Your task to perform on an android device: Clear the shopping cart on bestbuy.com. Add "acer nitro" to the cart on bestbuy.com, then select checkout. Image 0: 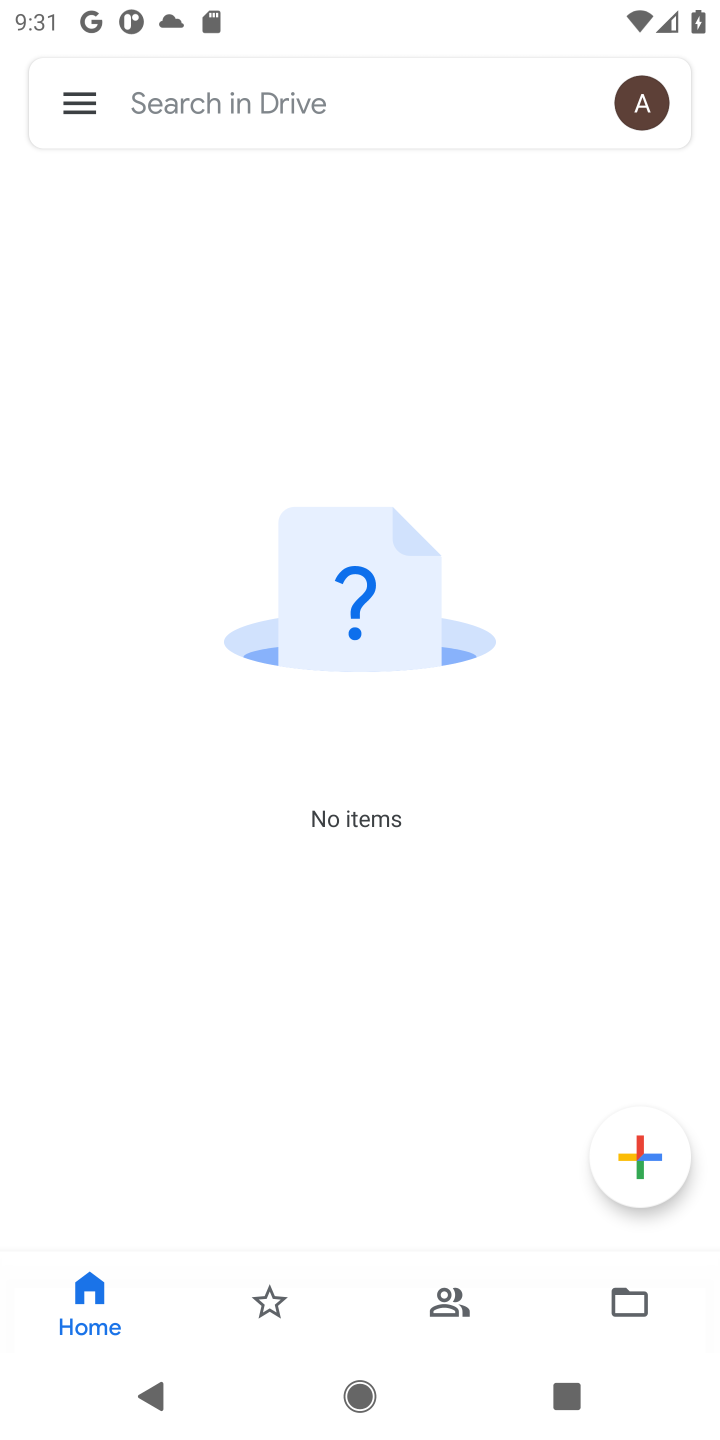
Step 0: press home button
Your task to perform on an android device: Clear the shopping cart on bestbuy.com. Add "acer nitro" to the cart on bestbuy.com, then select checkout. Image 1: 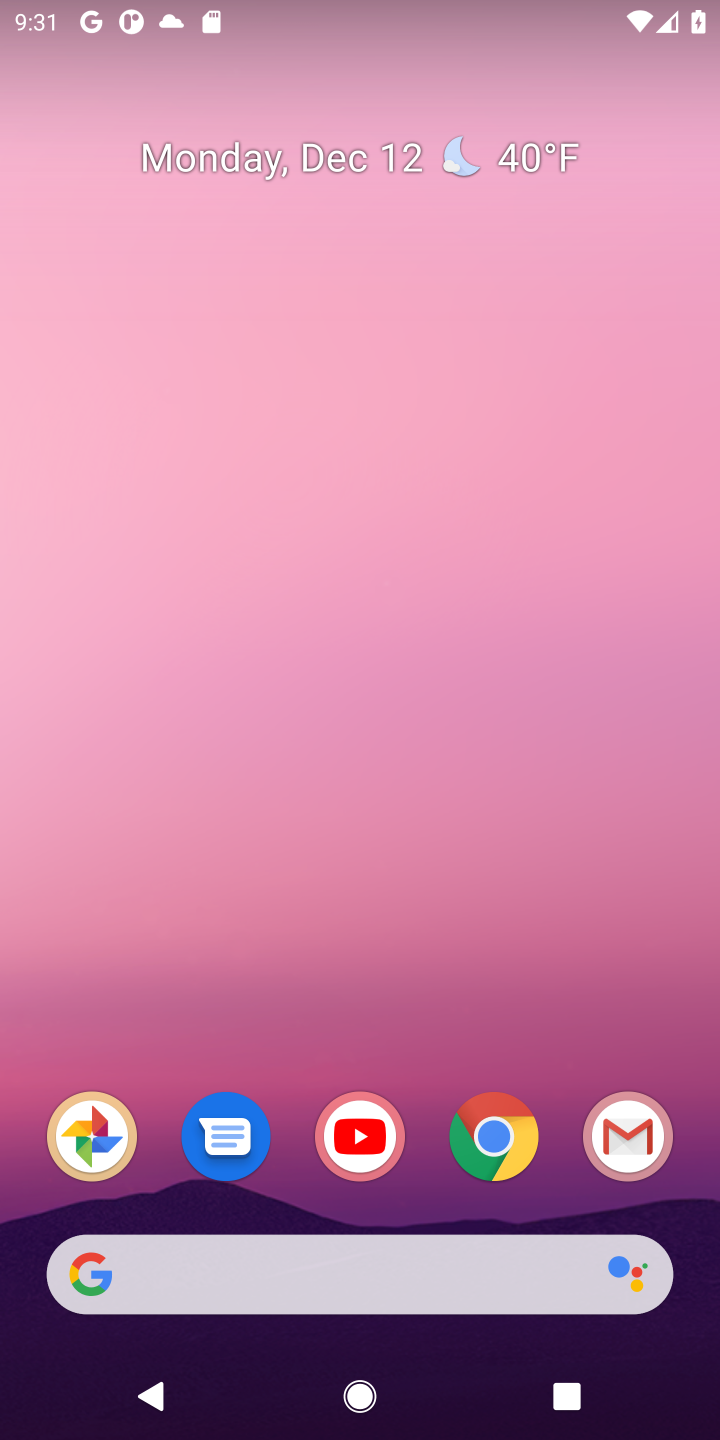
Step 1: click (503, 1146)
Your task to perform on an android device: Clear the shopping cart on bestbuy.com. Add "acer nitro" to the cart on bestbuy.com, then select checkout. Image 2: 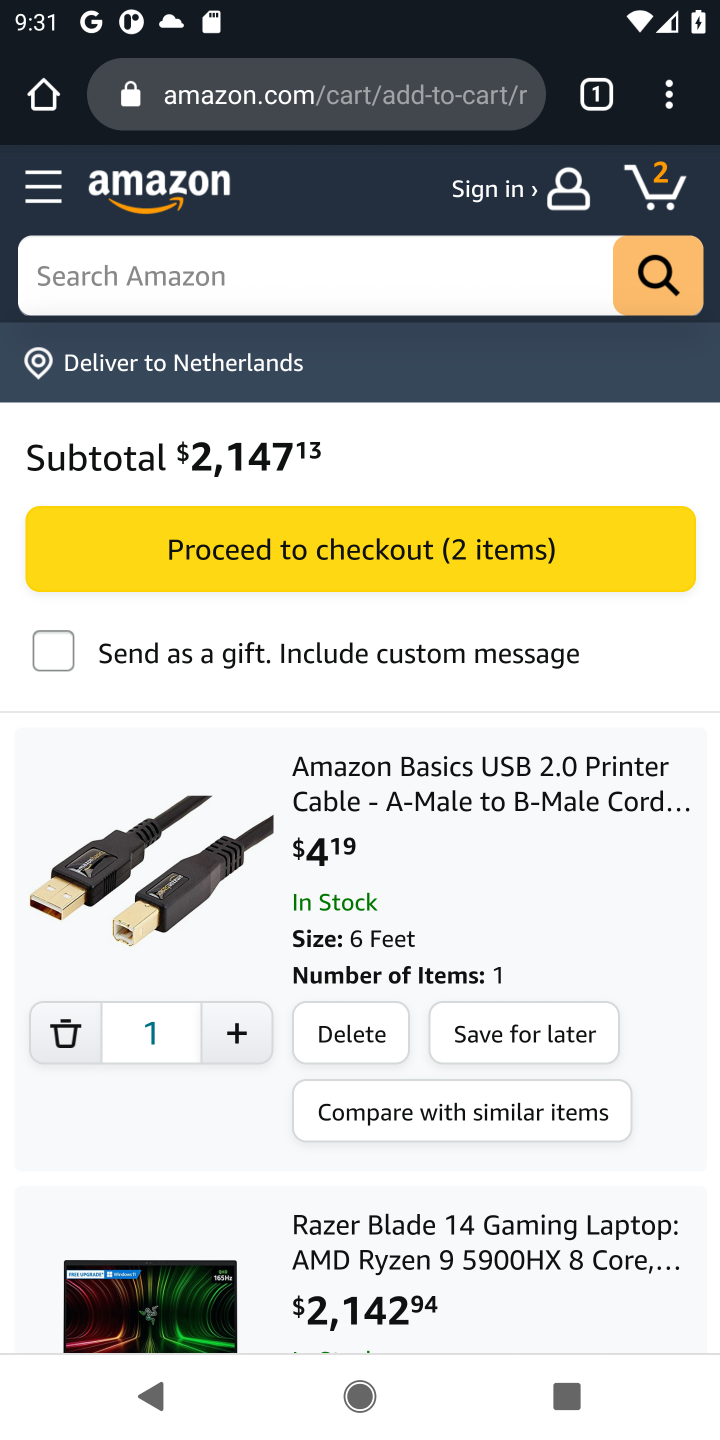
Step 2: click (319, 102)
Your task to perform on an android device: Clear the shopping cart on bestbuy.com. Add "acer nitro" to the cart on bestbuy.com, then select checkout. Image 3: 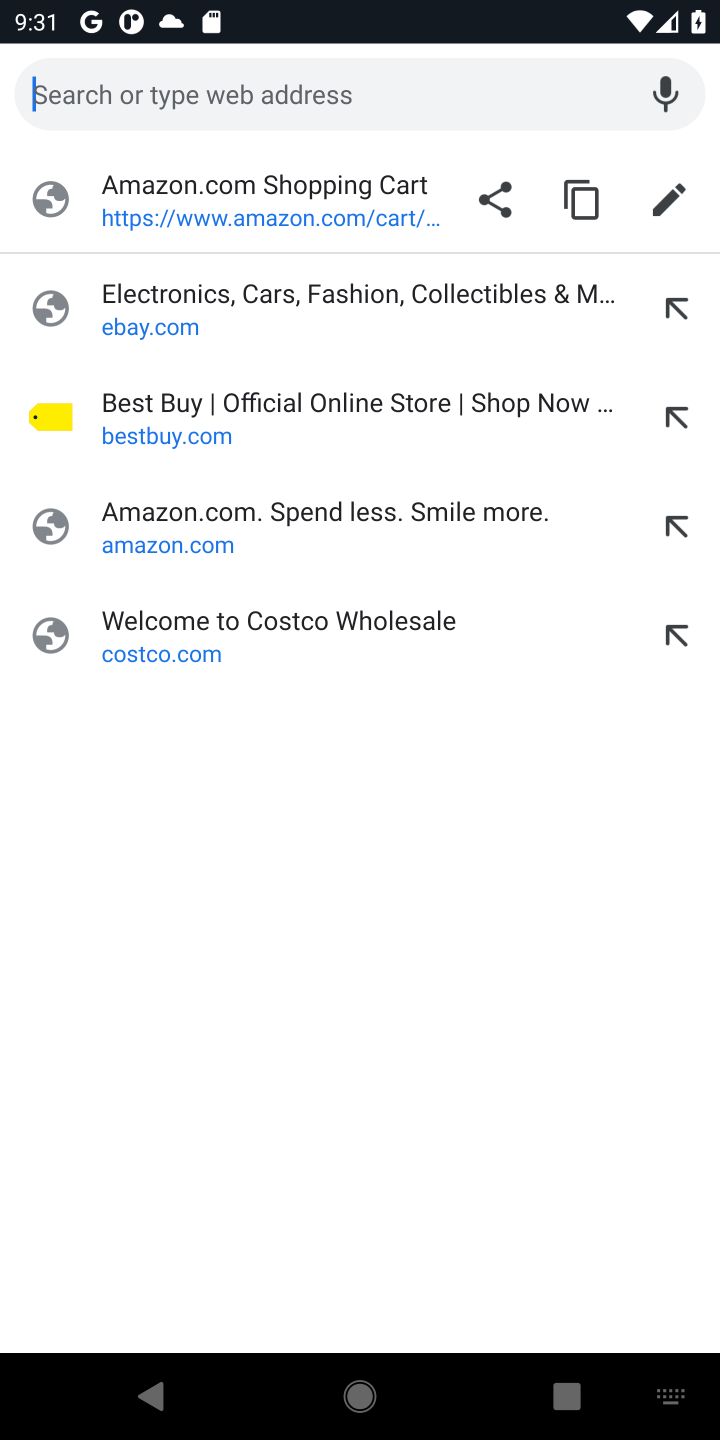
Step 3: click (140, 420)
Your task to perform on an android device: Clear the shopping cart on bestbuy.com. Add "acer nitro" to the cart on bestbuy.com, then select checkout. Image 4: 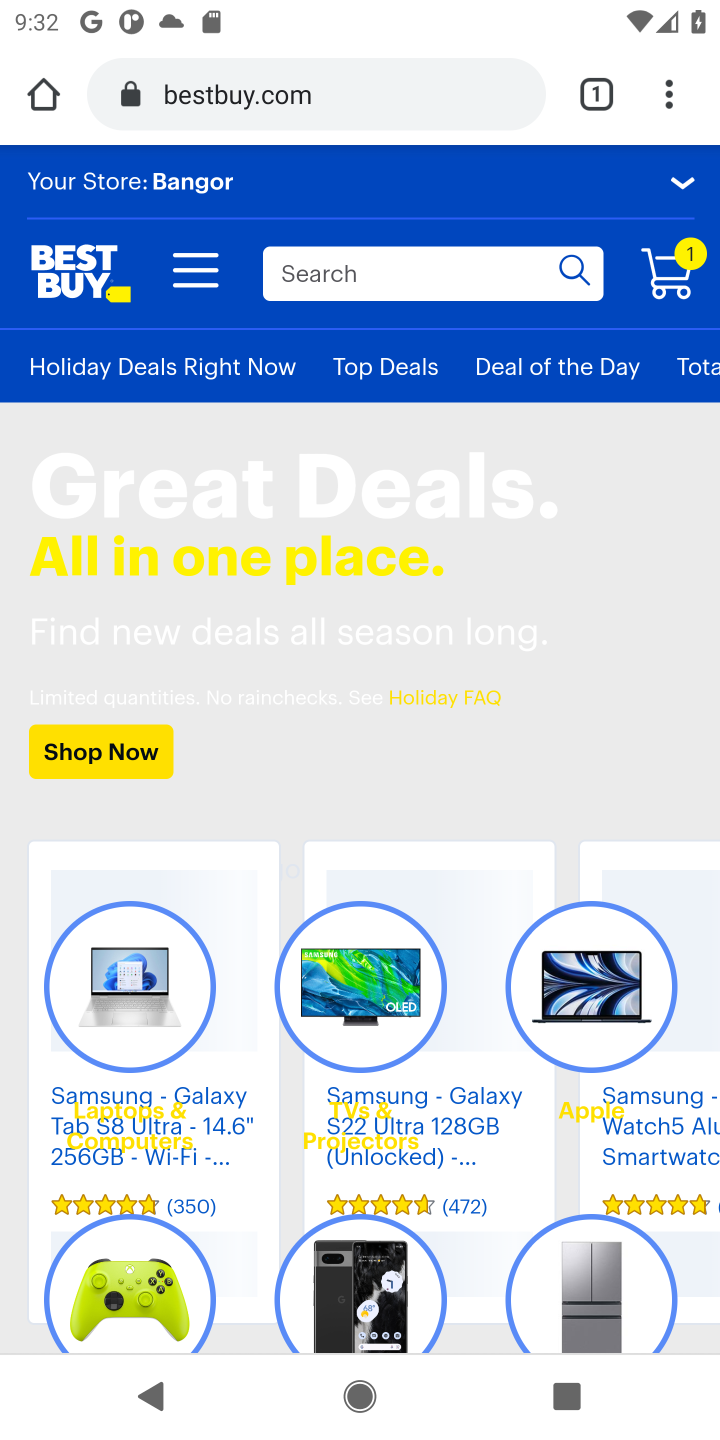
Step 4: click (675, 282)
Your task to perform on an android device: Clear the shopping cart on bestbuy.com. Add "acer nitro" to the cart on bestbuy.com, then select checkout. Image 5: 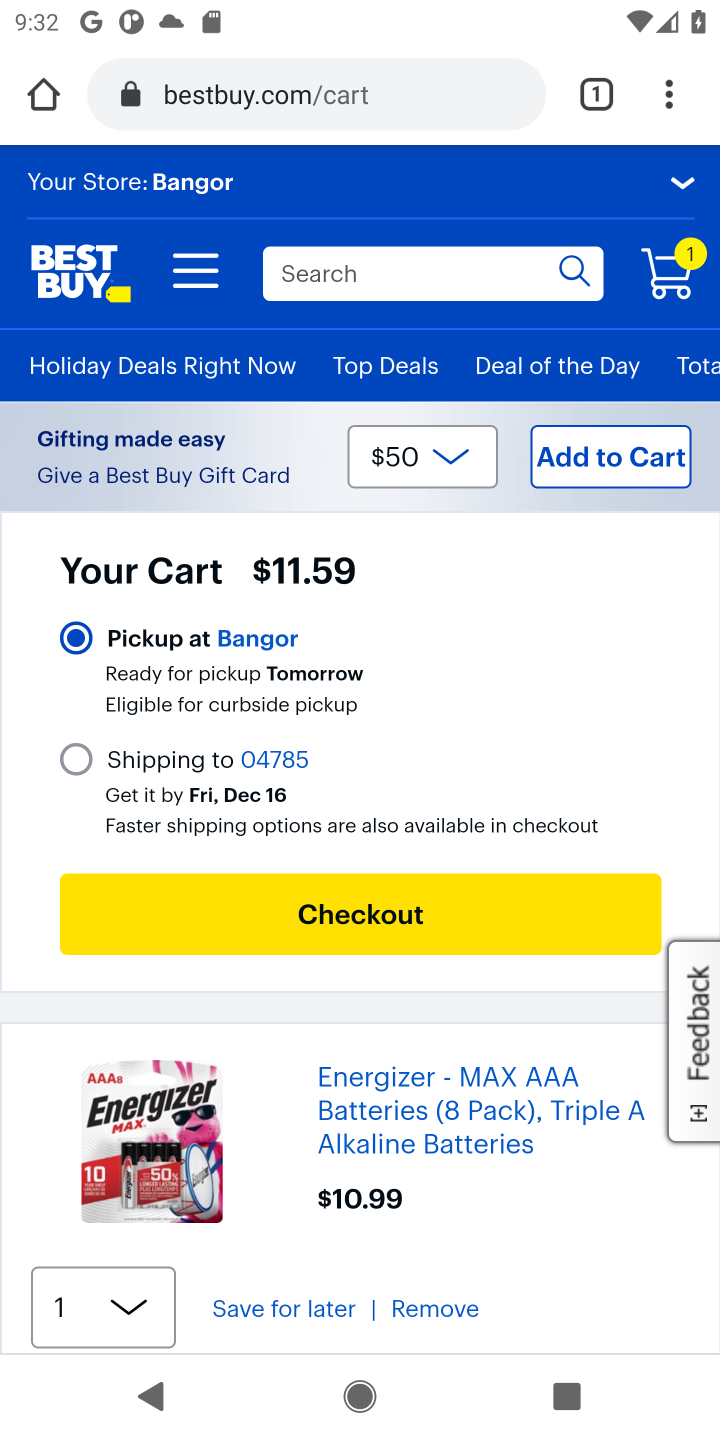
Step 5: drag from (349, 762) to (349, 364)
Your task to perform on an android device: Clear the shopping cart on bestbuy.com. Add "acer nitro" to the cart on bestbuy.com, then select checkout. Image 6: 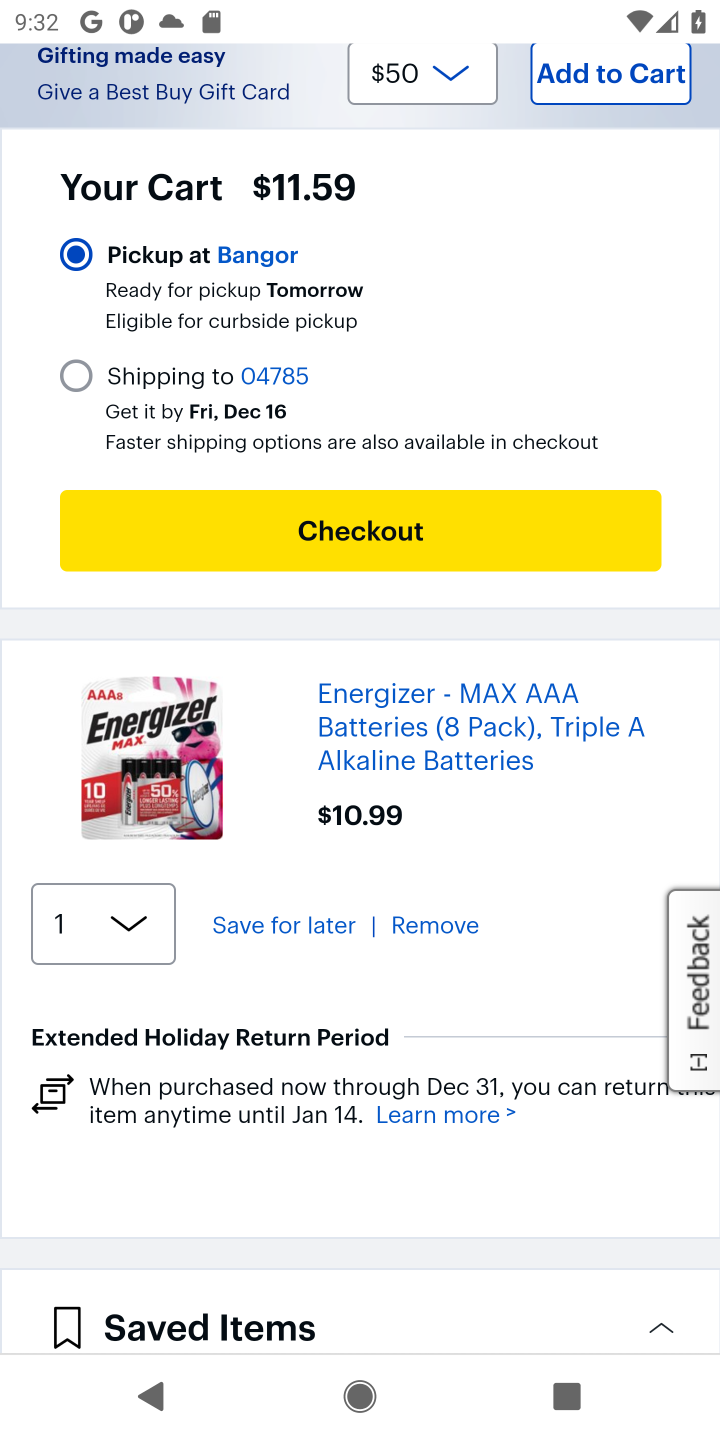
Step 6: click (436, 932)
Your task to perform on an android device: Clear the shopping cart on bestbuy.com. Add "acer nitro" to the cart on bestbuy.com, then select checkout. Image 7: 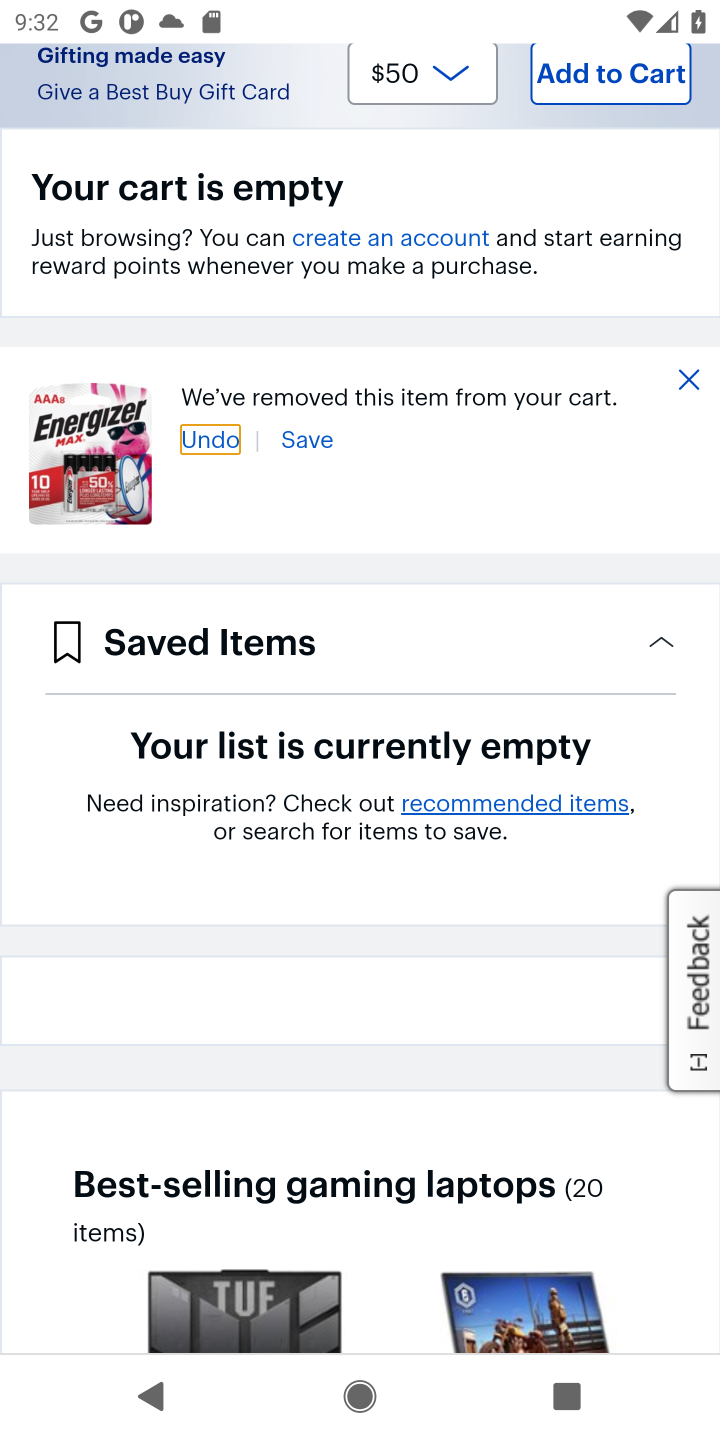
Step 7: drag from (454, 536) to (478, 967)
Your task to perform on an android device: Clear the shopping cart on bestbuy.com. Add "acer nitro" to the cart on bestbuy.com, then select checkout. Image 8: 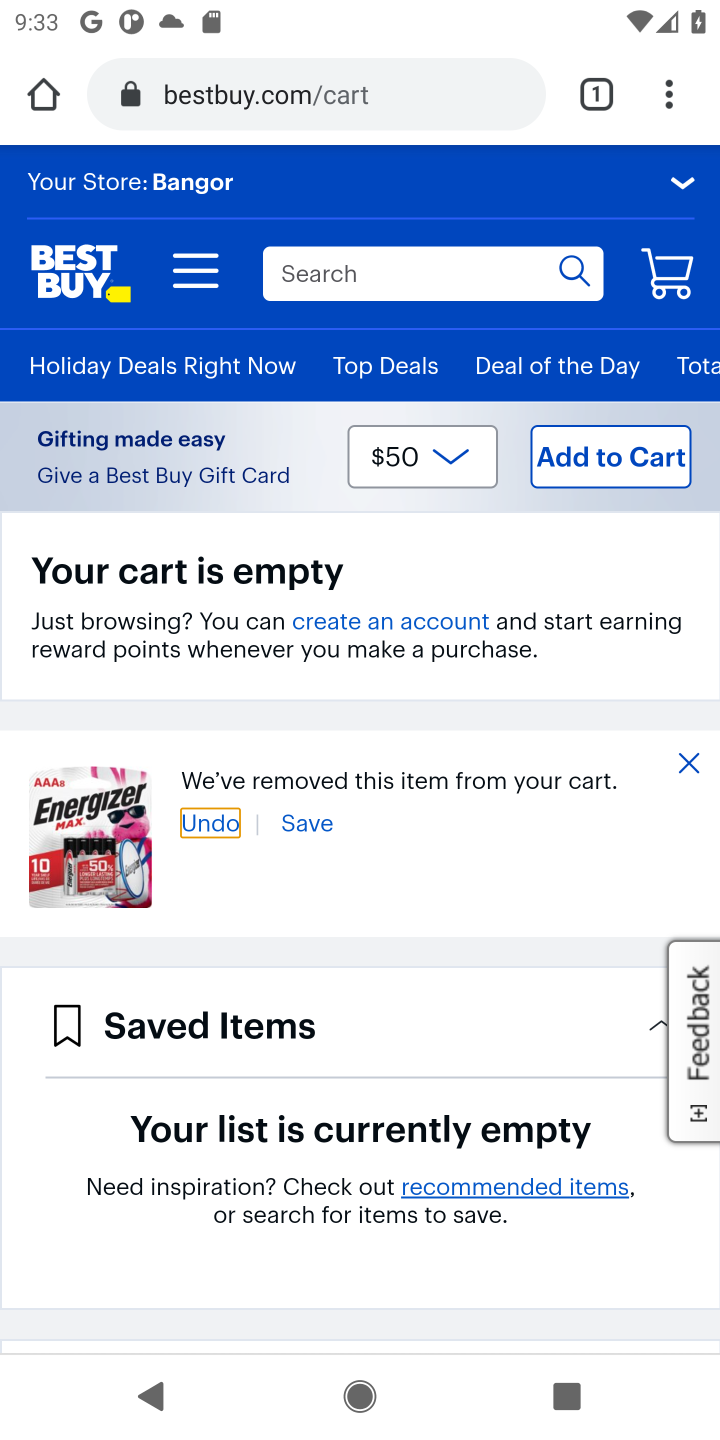
Step 8: click (313, 288)
Your task to perform on an android device: Clear the shopping cart on bestbuy.com. Add "acer nitro" to the cart on bestbuy.com, then select checkout. Image 9: 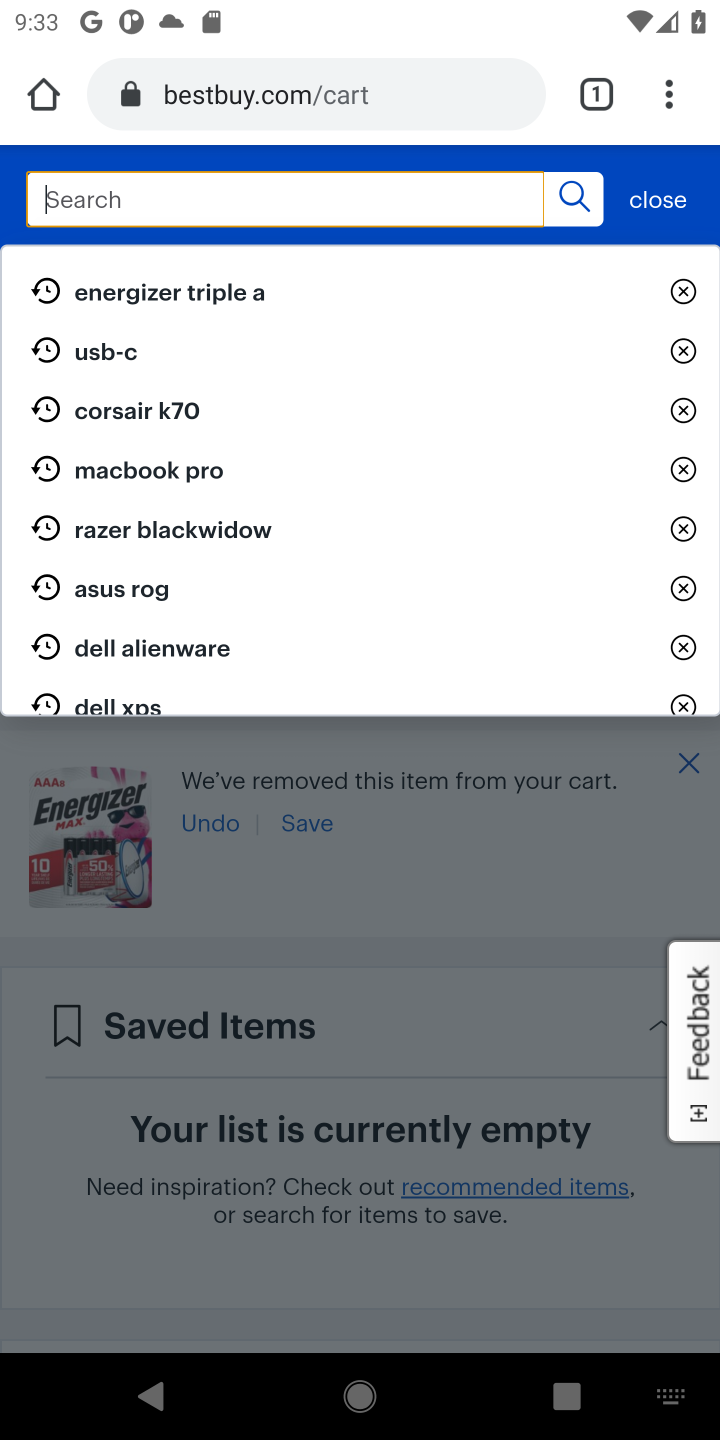
Step 9: type "acer nitro"
Your task to perform on an android device: Clear the shopping cart on bestbuy.com. Add "acer nitro" to the cart on bestbuy.com, then select checkout. Image 10: 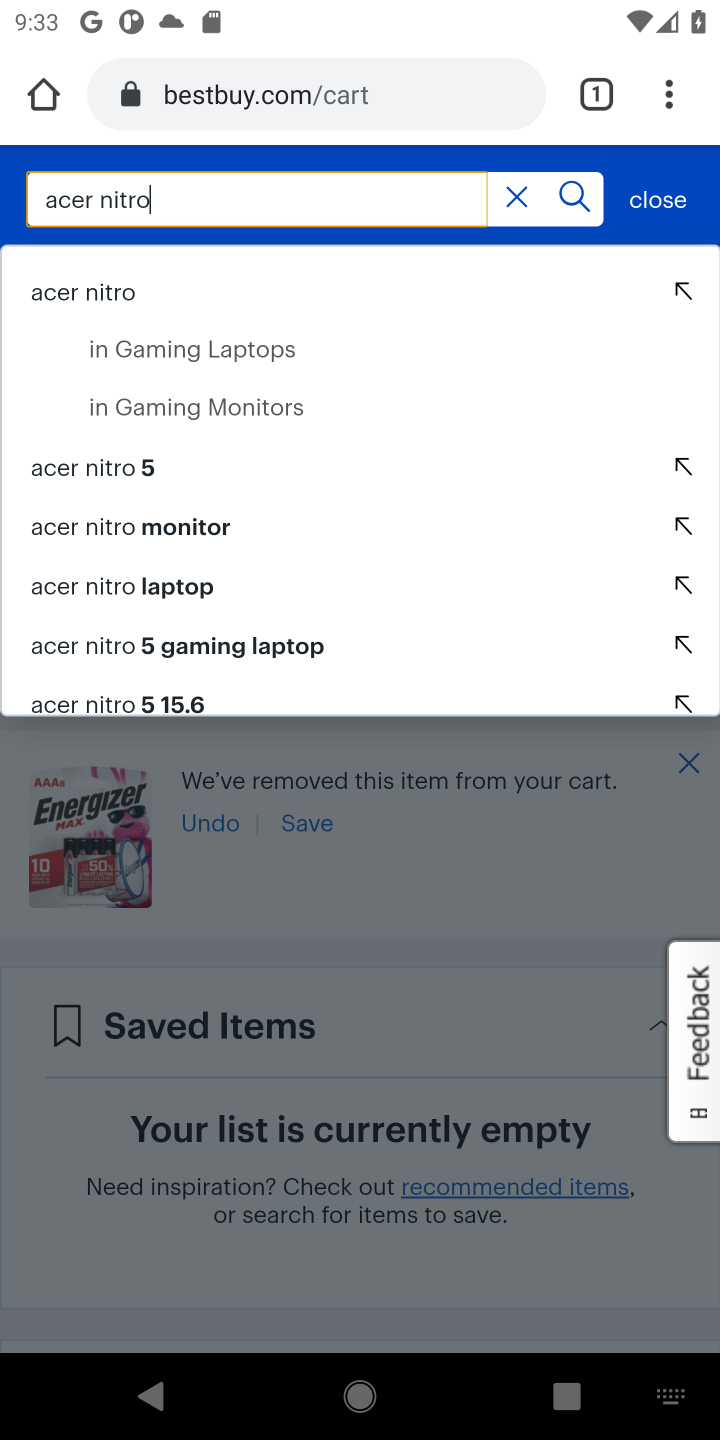
Step 10: click (116, 290)
Your task to perform on an android device: Clear the shopping cart on bestbuy.com. Add "acer nitro" to the cart on bestbuy.com, then select checkout. Image 11: 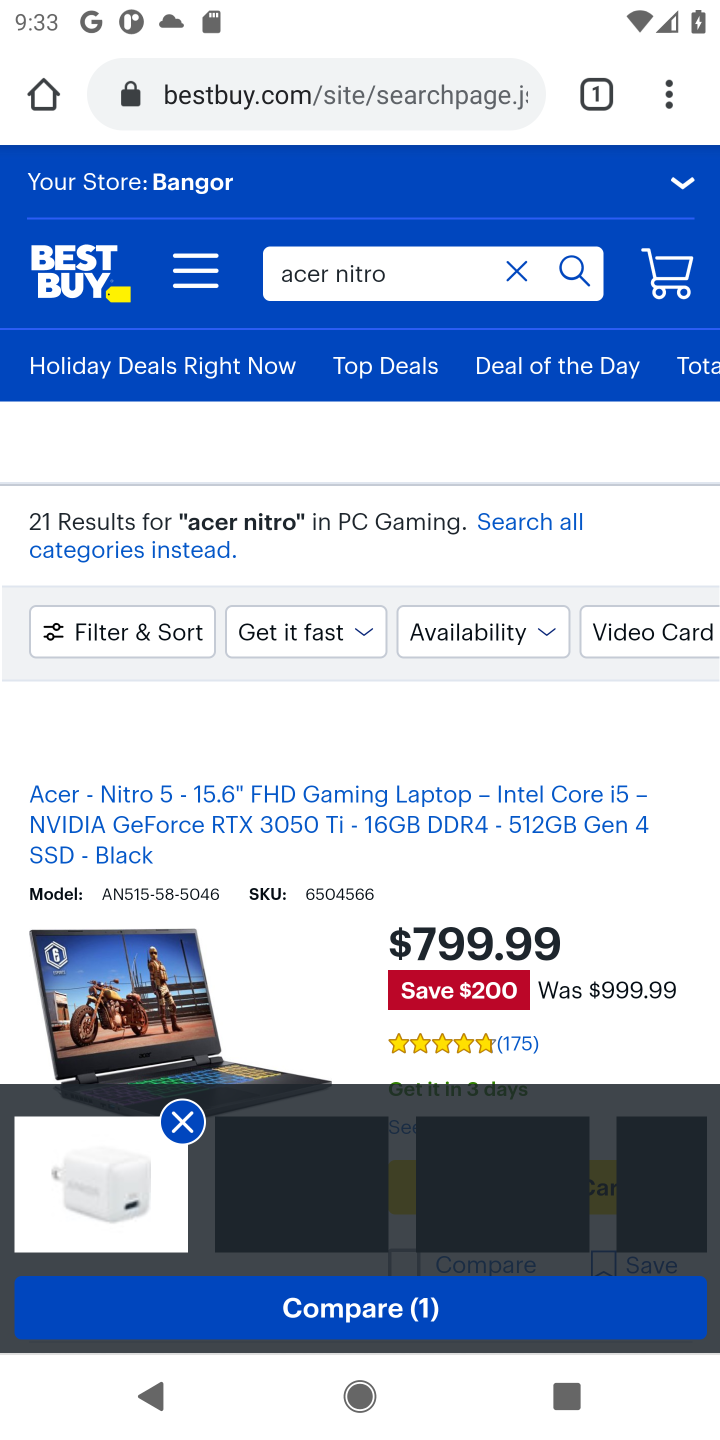
Step 11: drag from (240, 901) to (233, 545)
Your task to perform on an android device: Clear the shopping cart on bestbuy.com. Add "acer nitro" to the cart on bestbuy.com, then select checkout. Image 12: 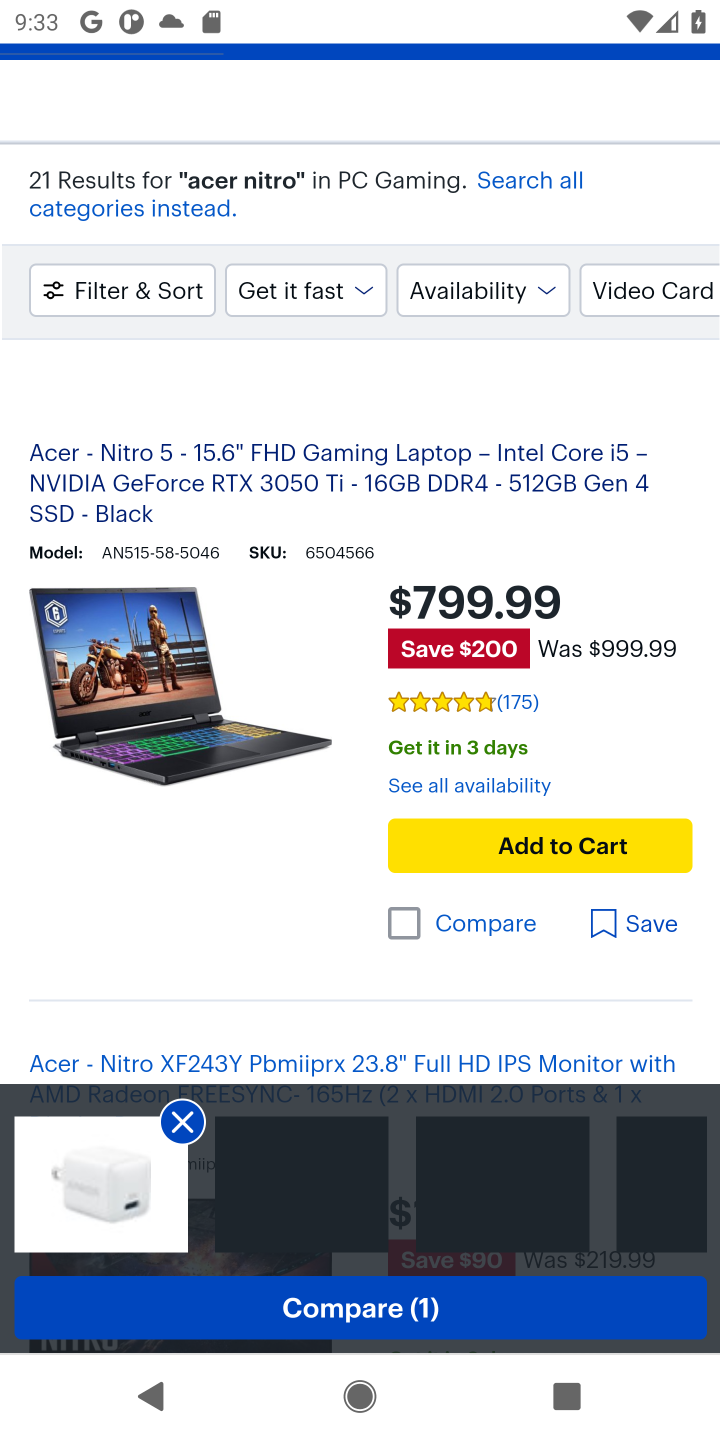
Step 12: click (534, 850)
Your task to perform on an android device: Clear the shopping cart on bestbuy.com. Add "acer nitro" to the cart on bestbuy.com, then select checkout. Image 13: 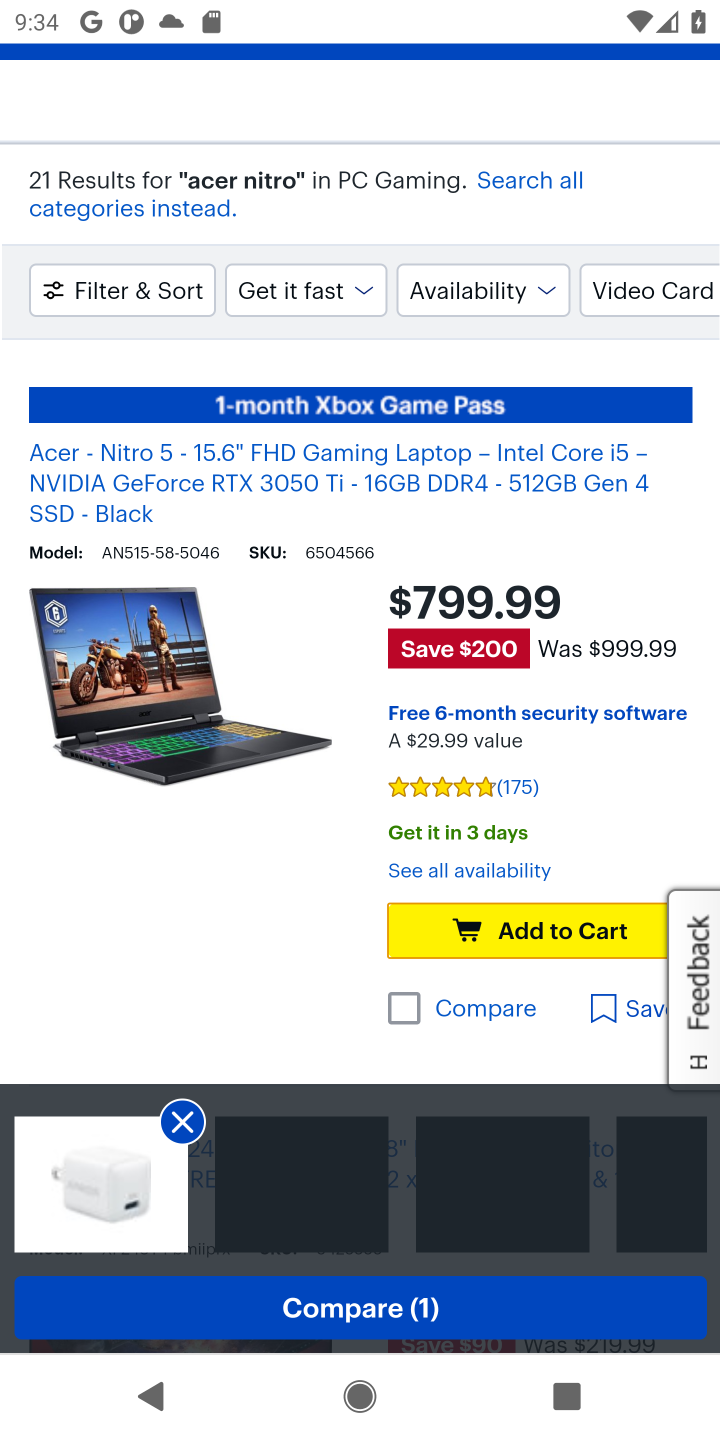
Step 13: click (501, 936)
Your task to perform on an android device: Clear the shopping cart on bestbuy.com. Add "acer nitro" to the cart on bestbuy.com, then select checkout. Image 14: 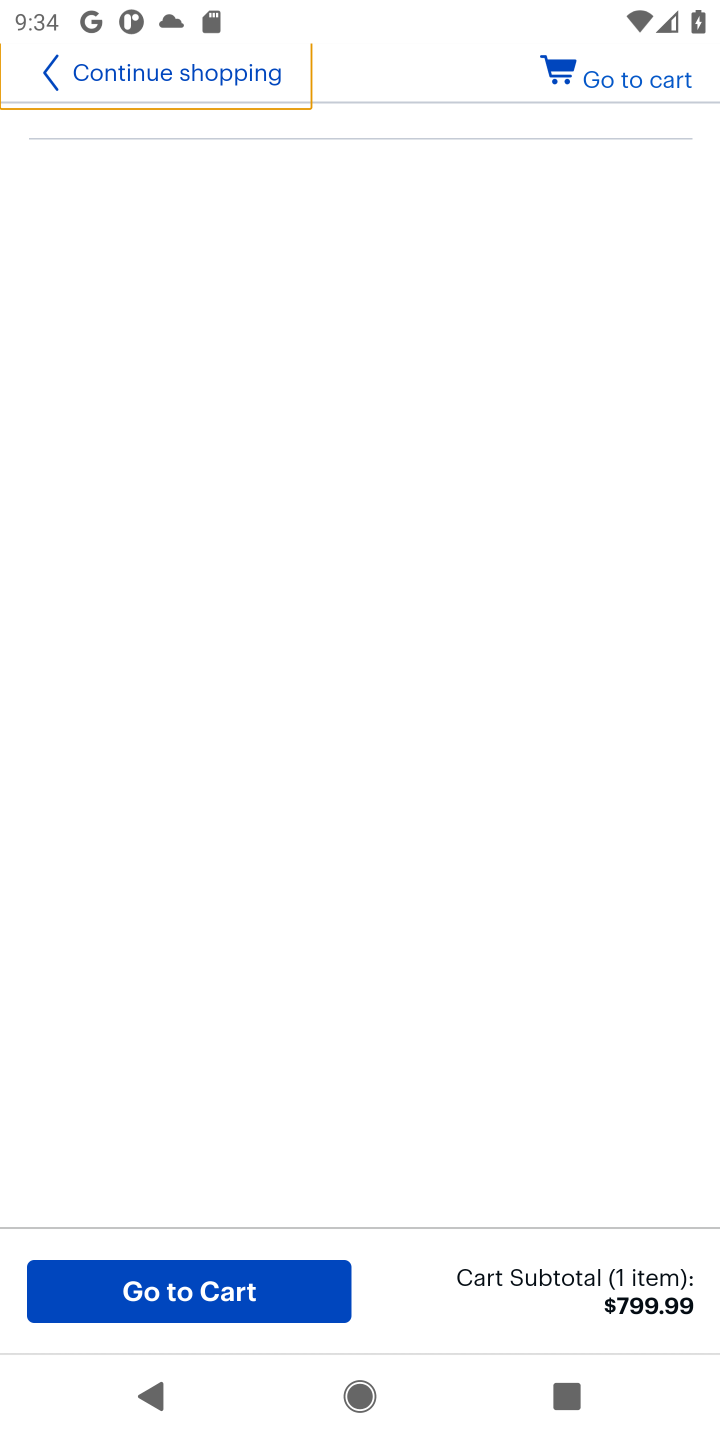
Step 14: click (644, 82)
Your task to perform on an android device: Clear the shopping cart on bestbuy.com. Add "acer nitro" to the cart on bestbuy.com, then select checkout. Image 15: 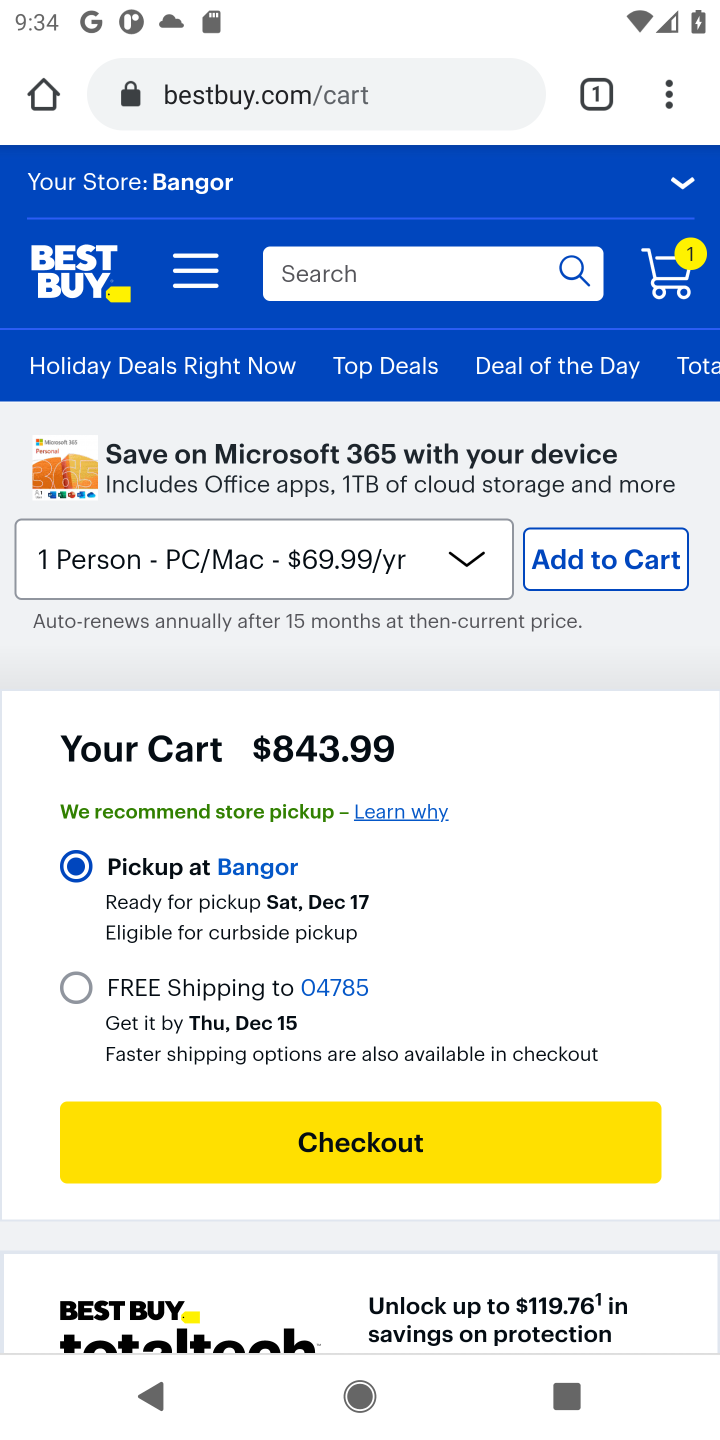
Step 15: click (369, 1150)
Your task to perform on an android device: Clear the shopping cart on bestbuy.com. Add "acer nitro" to the cart on bestbuy.com, then select checkout. Image 16: 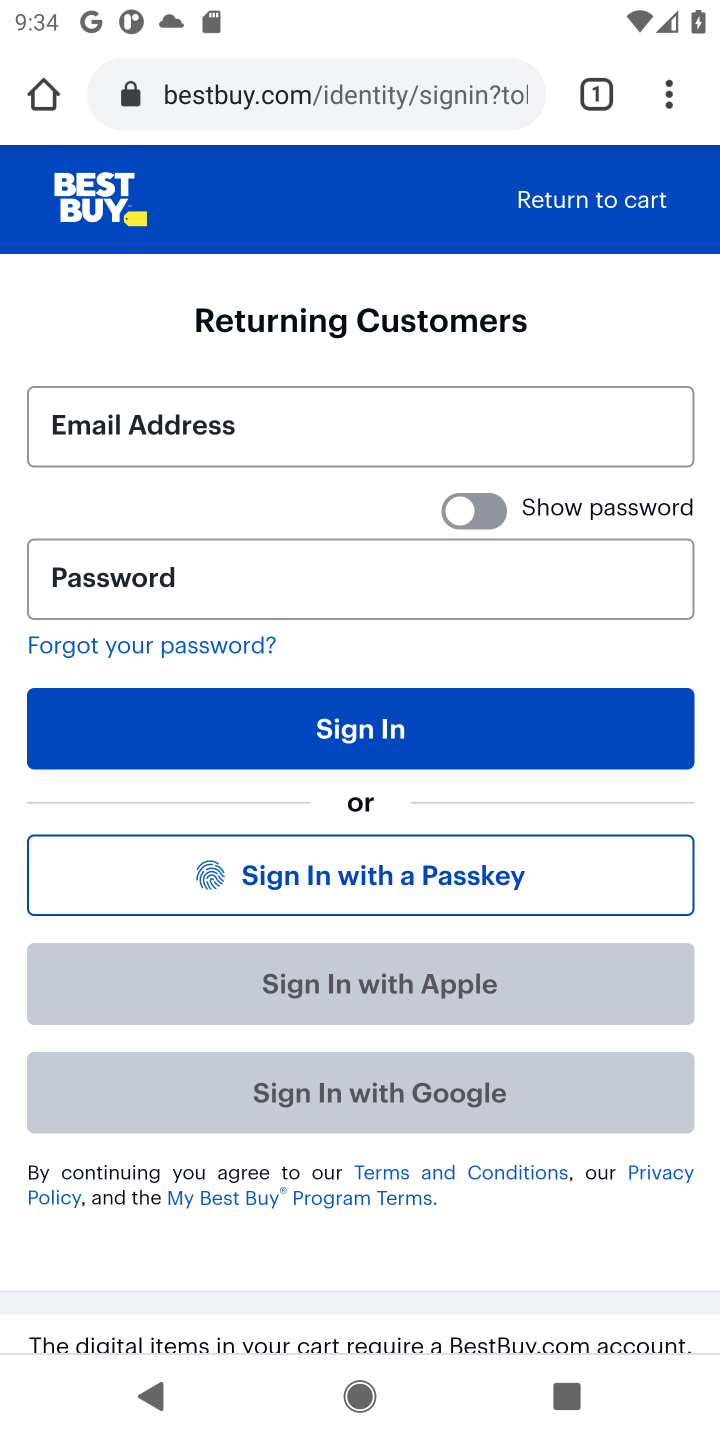
Step 16: task complete